Your task to perform on an android device: Show me the best rated coffee table on Ikea Image 0: 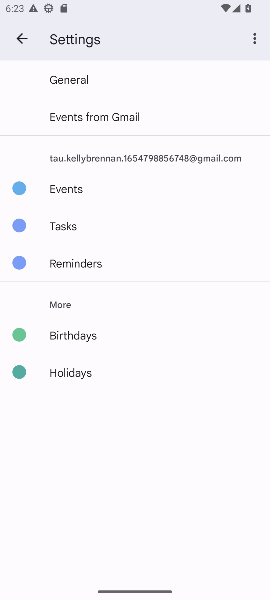
Step 0: drag from (127, 433) to (162, 394)
Your task to perform on an android device: Show me the best rated coffee table on Ikea Image 1: 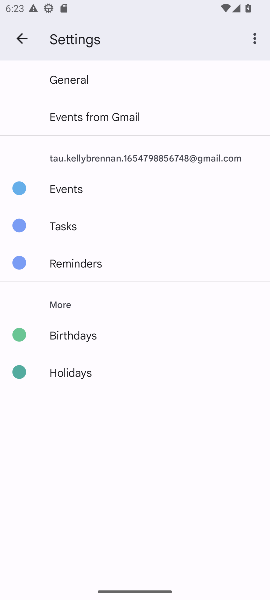
Step 1: press home button
Your task to perform on an android device: Show me the best rated coffee table on Ikea Image 2: 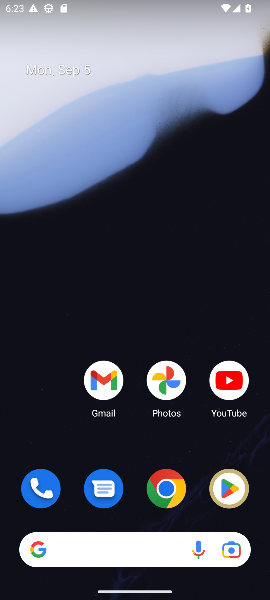
Step 2: click (171, 498)
Your task to perform on an android device: Show me the best rated coffee table on Ikea Image 3: 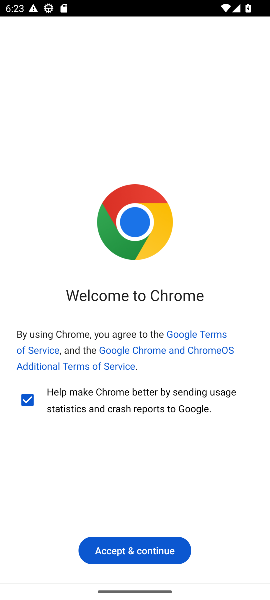
Step 3: click (124, 552)
Your task to perform on an android device: Show me the best rated coffee table on Ikea Image 4: 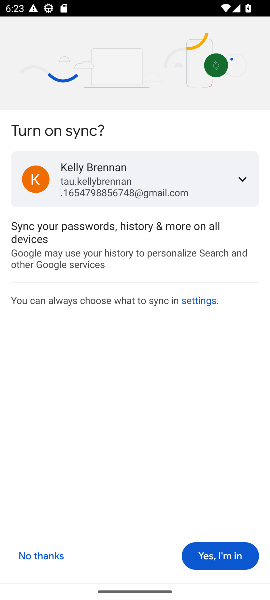
Step 4: click (226, 554)
Your task to perform on an android device: Show me the best rated coffee table on Ikea Image 5: 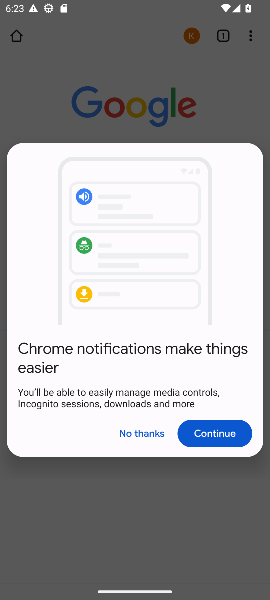
Step 5: click (169, 377)
Your task to perform on an android device: Show me the best rated coffee table on Ikea Image 6: 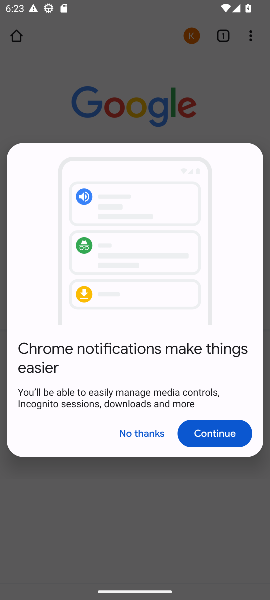
Step 6: click (222, 432)
Your task to perform on an android device: Show me the best rated coffee table on Ikea Image 7: 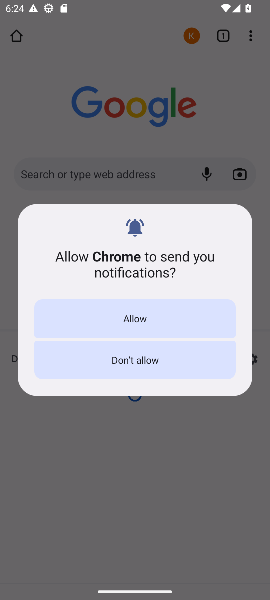
Step 7: click (182, 305)
Your task to perform on an android device: Show me the best rated coffee table on Ikea Image 8: 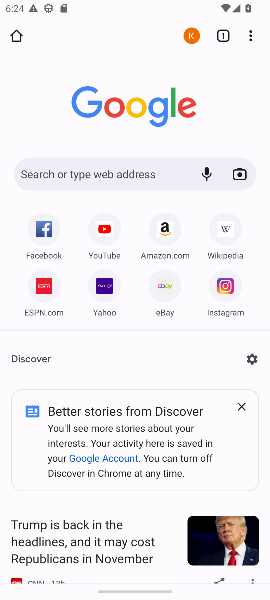
Step 8: click (138, 183)
Your task to perform on an android device: Show me the best rated coffee table on Ikea Image 9: 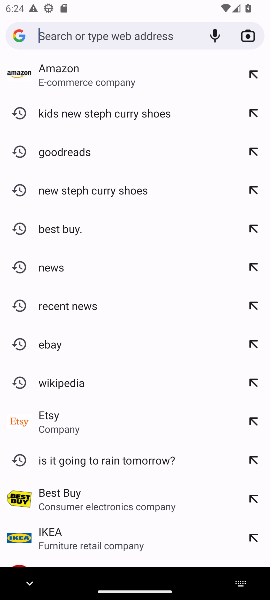
Step 9: type "ikea"
Your task to perform on an android device: Show me the best rated coffee table on Ikea Image 10: 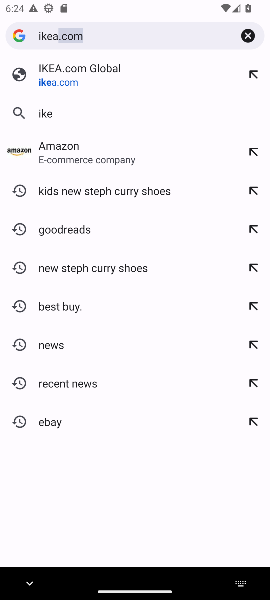
Step 10: type ""
Your task to perform on an android device: Show me the best rated coffee table on Ikea Image 11: 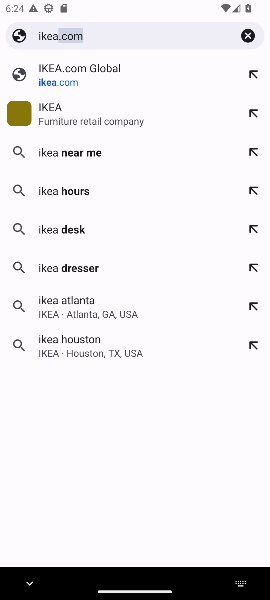
Step 11: press enter
Your task to perform on an android device: Show me the best rated coffee table on Ikea Image 12: 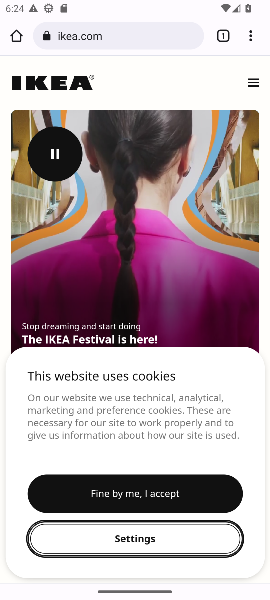
Step 12: click (155, 402)
Your task to perform on an android device: Show me the best rated coffee table on Ikea Image 13: 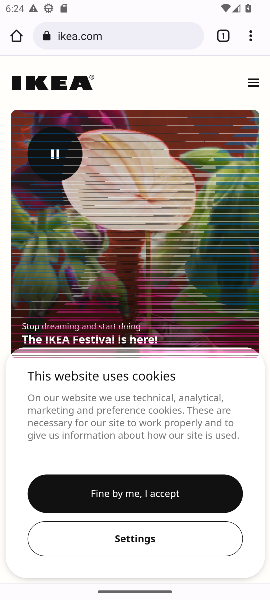
Step 13: click (187, 498)
Your task to perform on an android device: Show me the best rated coffee table on Ikea Image 14: 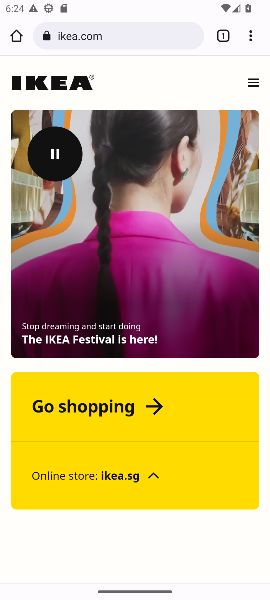
Step 14: click (157, 396)
Your task to perform on an android device: Show me the best rated coffee table on Ikea Image 15: 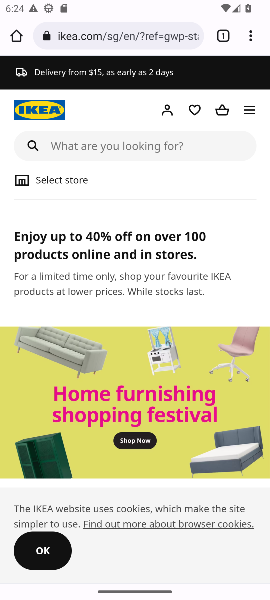
Step 15: click (101, 140)
Your task to perform on an android device: Show me the best rated coffee table on Ikea Image 16: 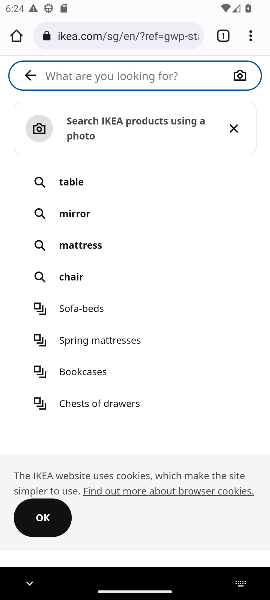
Step 16: type "best rated coffee table"
Your task to perform on an android device: Show me the best rated coffee table on Ikea Image 17: 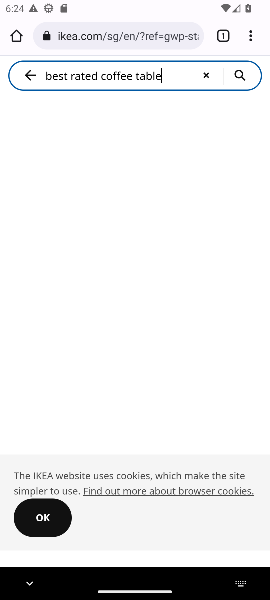
Step 17: press enter
Your task to perform on an android device: Show me the best rated coffee table on Ikea Image 18: 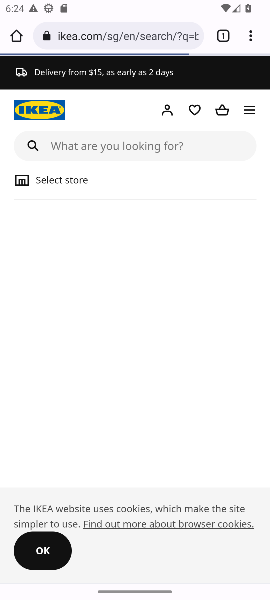
Step 18: click (49, 550)
Your task to perform on an android device: Show me the best rated coffee table on Ikea Image 19: 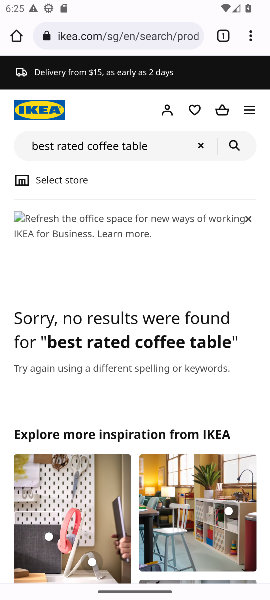
Step 19: drag from (131, 422) to (126, 229)
Your task to perform on an android device: Show me the best rated coffee table on Ikea Image 20: 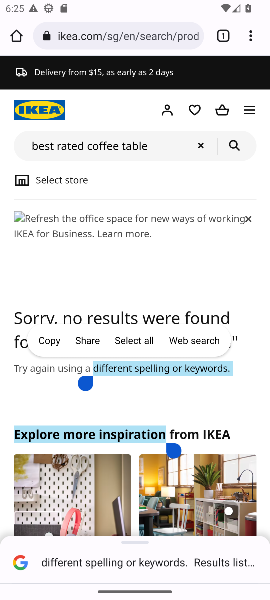
Step 20: click (239, 414)
Your task to perform on an android device: Show me the best rated coffee table on Ikea Image 21: 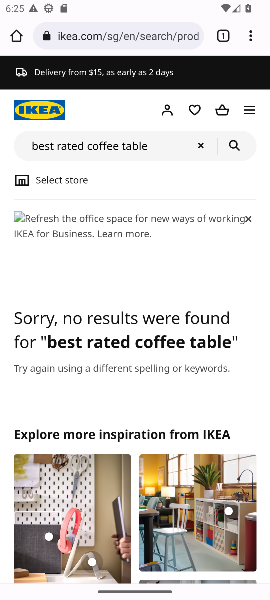
Step 21: drag from (172, 411) to (201, 435)
Your task to perform on an android device: Show me the best rated coffee table on Ikea Image 22: 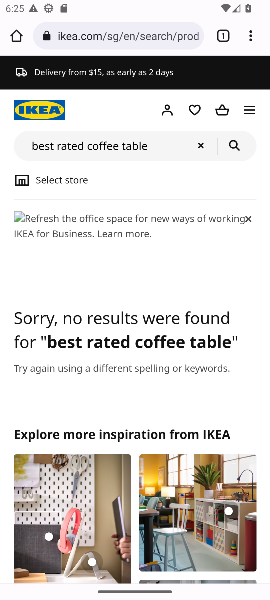
Step 22: click (111, 134)
Your task to perform on an android device: Show me the best rated coffee table on Ikea Image 23: 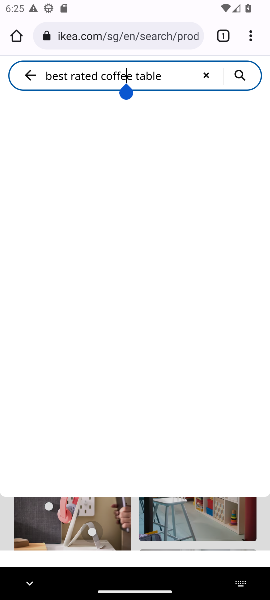
Step 23: click (205, 74)
Your task to perform on an android device: Show me the best rated coffee table on Ikea Image 24: 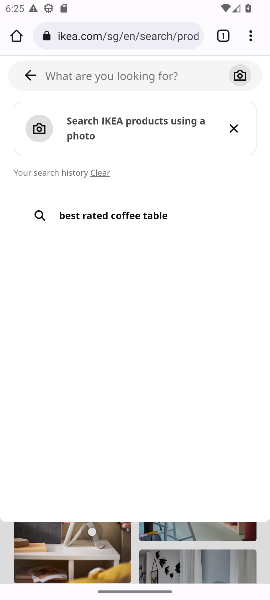
Step 24: click (115, 81)
Your task to perform on an android device: Show me the best rated coffee table on Ikea Image 25: 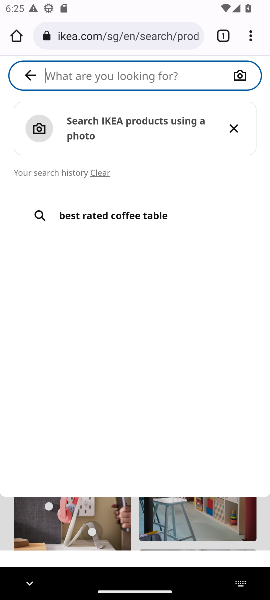
Step 25: type "coffee table"
Your task to perform on an android device: Show me the best rated coffee table on Ikea Image 26: 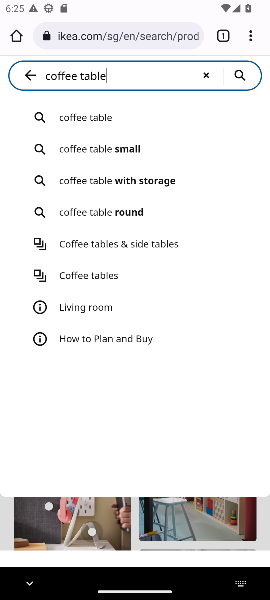
Step 26: press enter
Your task to perform on an android device: Show me the best rated coffee table on Ikea Image 27: 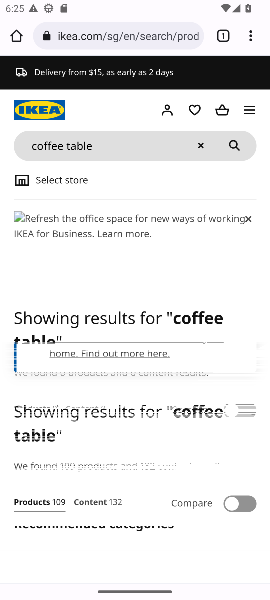
Step 27: drag from (168, 298) to (165, 192)
Your task to perform on an android device: Show me the best rated coffee table on Ikea Image 28: 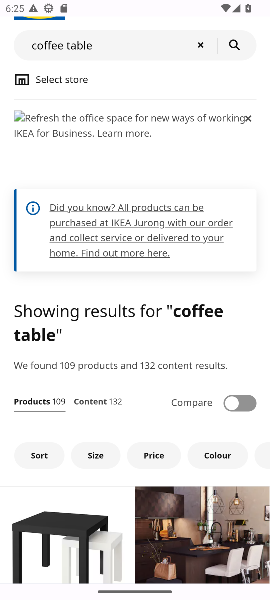
Step 28: click (34, 457)
Your task to perform on an android device: Show me the best rated coffee table on Ikea Image 29: 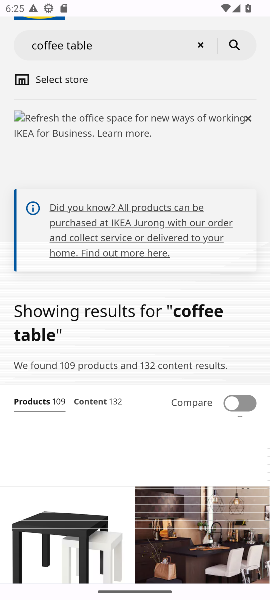
Step 29: drag from (133, 355) to (129, 166)
Your task to perform on an android device: Show me the best rated coffee table on Ikea Image 30: 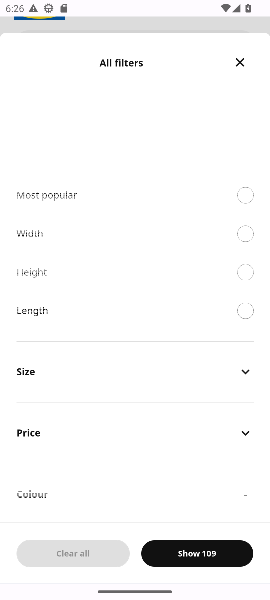
Step 30: drag from (138, 474) to (137, 178)
Your task to perform on an android device: Show me the best rated coffee table on Ikea Image 31: 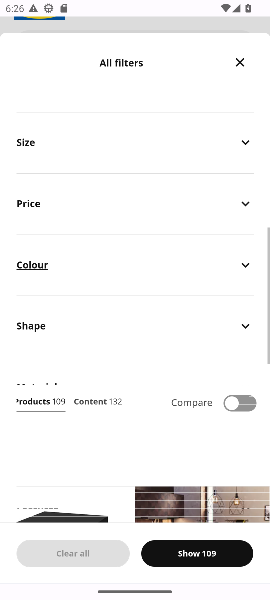
Step 31: drag from (139, 415) to (138, 199)
Your task to perform on an android device: Show me the best rated coffee table on Ikea Image 32: 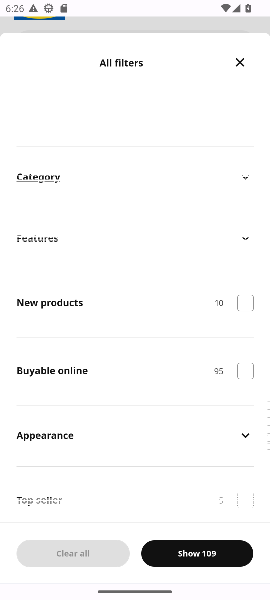
Step 32: drag from (128, 439) to (125, 231)
Your task to perform on an android device: Show me the best rated coffee table on Ikea Image 33: 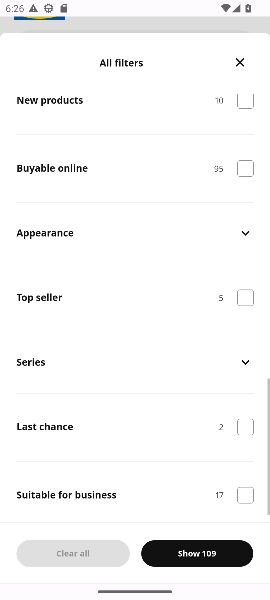
Step 33: drag from (137, 462) to (134, 157)
Your task to perform on an android device: Show me the best rated coffee table on Ikea Image 34: 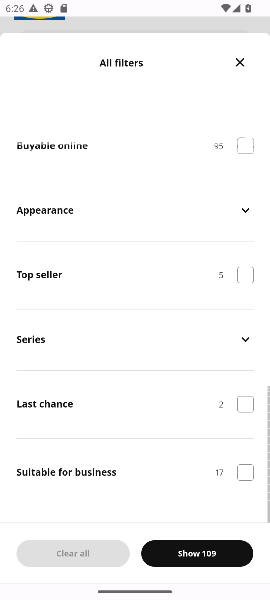
Step 34: drag from (147, 471) to (158, 216)
Your task to perform on an android device: Show me the best rated coffee table on Ikea Image 35: 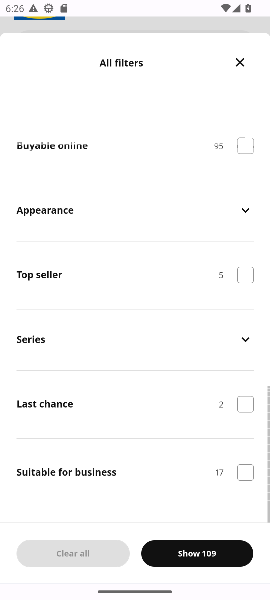
Step 35: drag from (151, 491) to (153, 268)
Your task to perform on an android device: Show me the best rated coffee table on Ikea Image 36: 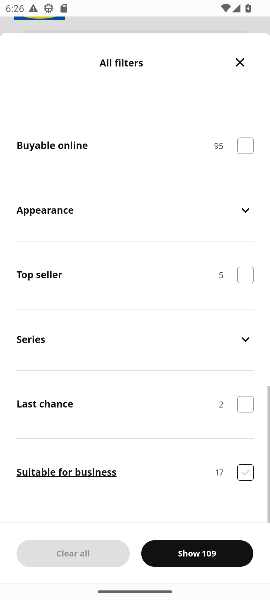
Step 36: drag from (128, 221) to (137, 458)
Your task to perform on an android device: Show me the best rated coffee table on Ikea Image 37: 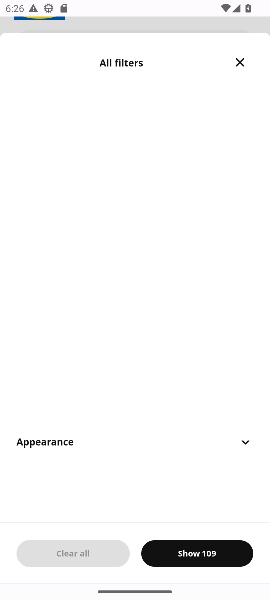
Step 37: drag from (143, 222) to (156, 456)
Your task to perform on an android device: Show me the best rated coffee table on Ikea Image 38: 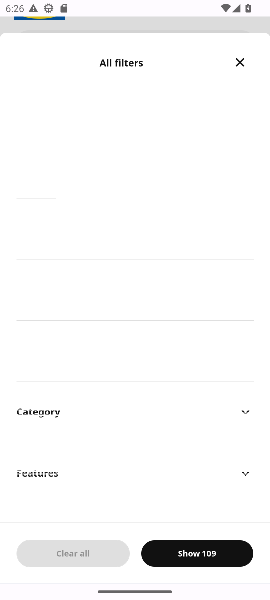
Step 38: drag from (153, 205) to (174, 494)
Your task to perform on an android device: Show me the best rated coffee table on Ikea Image 39: 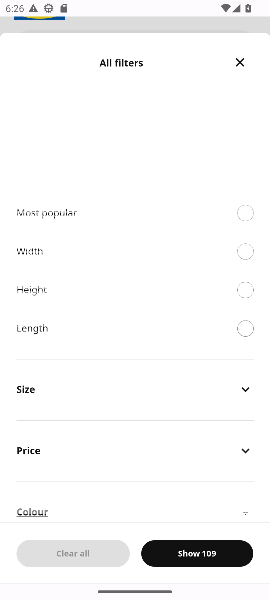
Step 39: drag from (151, 192) to (155, 321)
Your task to perform on an android device: Show me the best rated coffee table on Ikea Image 40: 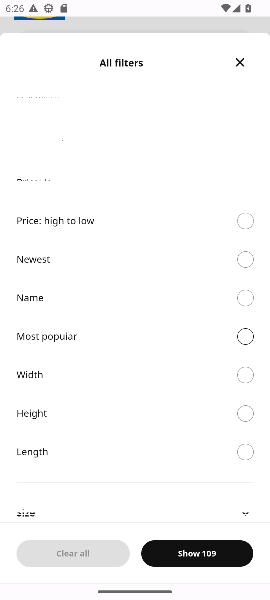
Step 40: click (244, 58)
Your task to perform on an android device: Show me the best rated coffee table on Ikea Image 41: 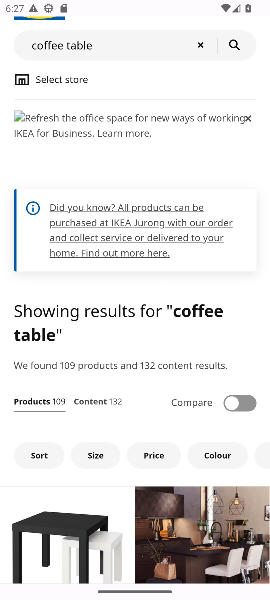
Step 41: drag from (211, 457) to (253, 470)
Your task to perform on an android device: Show me the best rated coffee table on Ikea Image 42: 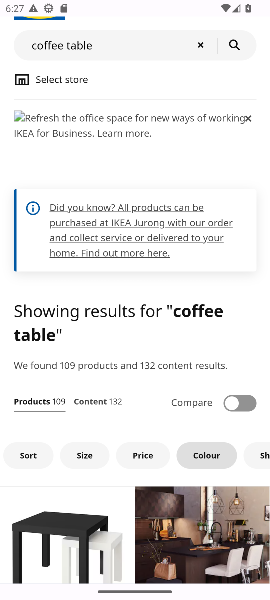
Step 42: click (29, 459)
Your task to perform on an android device: Show me the best rated coffee table on Ikea Image 43: 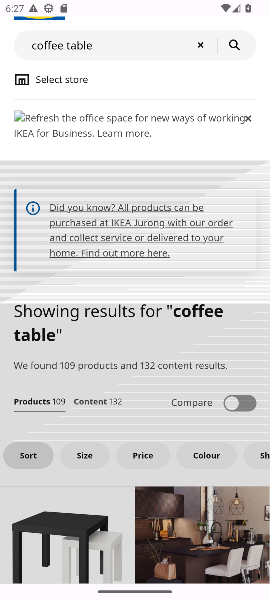
Step 43: click (25, 453)
Your task to perform on an android device: Show me the best rated coffee table on Ikea Image 44: 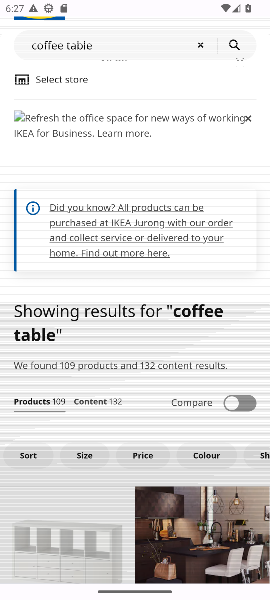
Step 44: click (38, 420)
Your task to perform on an android device: Show me the best rated coffee table on Ikea Image 45: 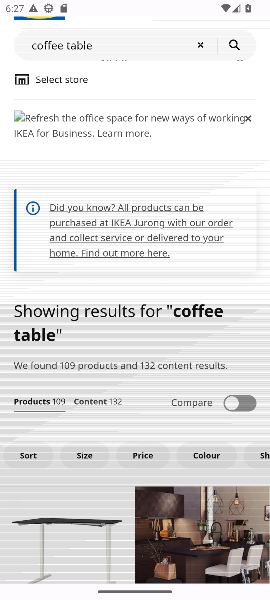
Step 45: click (19, 461)
Your task to perform on an android device: Show me the best rated coffee table on Ikea Image 46: 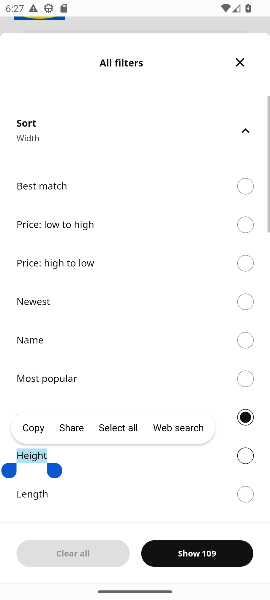
Step 46: task complete